Your task to perform on an android device: Open the calendar and show me this week's events? Image 0: 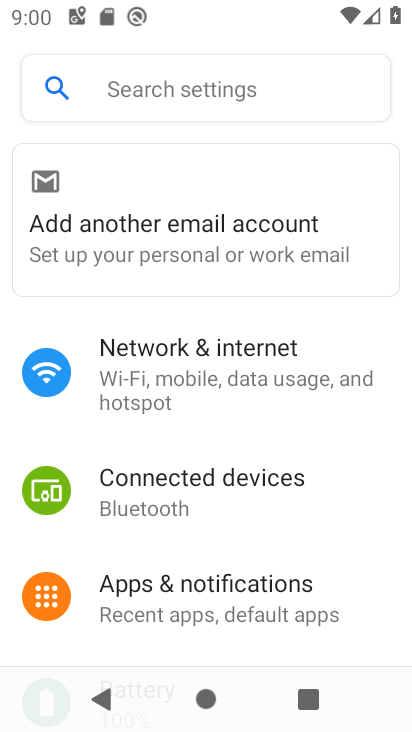
Step 0: press home button
Your task to perform on an android device: Open the calendar and show me this week's events? Image 1: 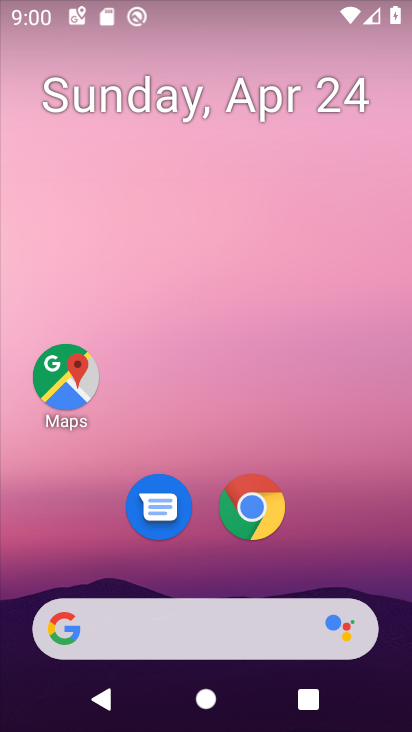
Step 1: drag from (324, 491) to (318, 41)
Your task to perform on an android device: Open the calendar and show me this week's events? Image 2: 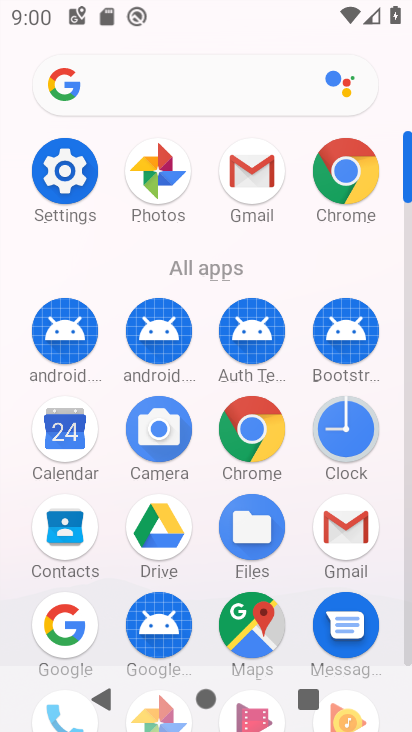
Step 2: click (77, 416)
Your task to perform on an android device: Open the calendar and show me this week's events? Image 3: 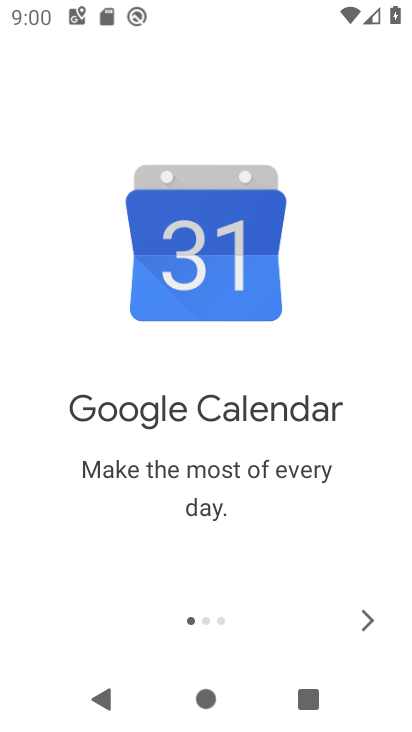
Step 3: click (366, 616)
Your task to perform on an android device: Open the calendar and show me this week's events? Image 4: 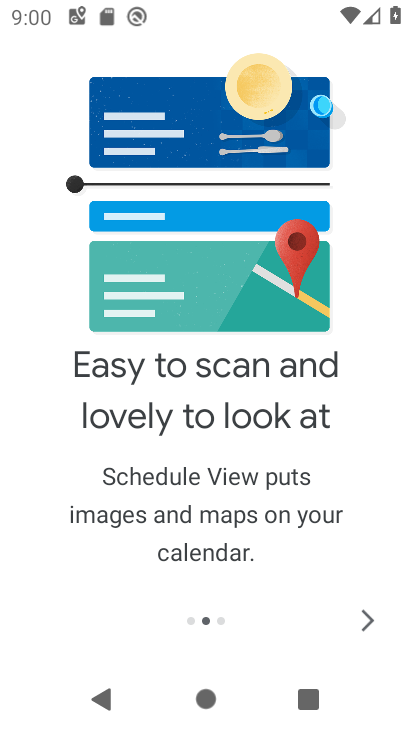
Step 4: click (366, 616)
Your task to perform on an android device: Open the calendar and show me this week's events? Image 5: 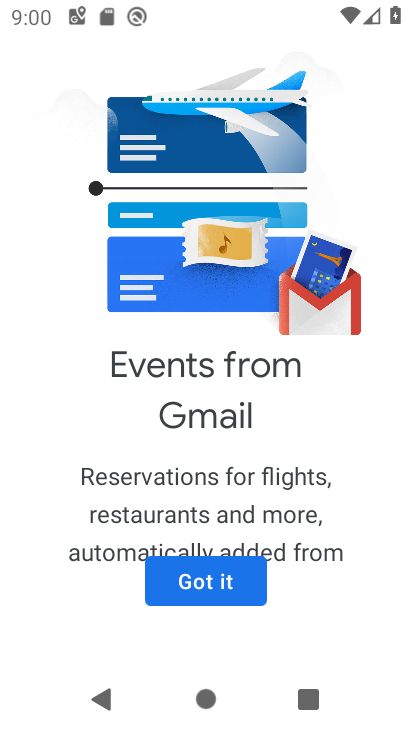
Step 5: click (211, 582)
Your task to perform on an android device: Open the calendar and show me this week's events? Image 6: 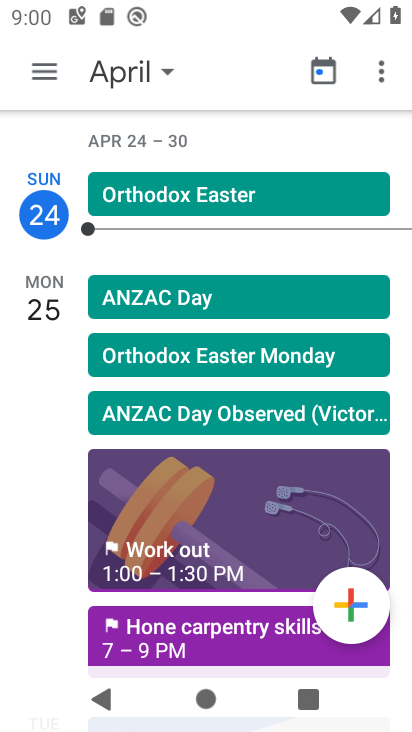
Step 6: click (49, 89)
Your task to perform on an android device: Open the calendar and show me this week's events? Image 7: 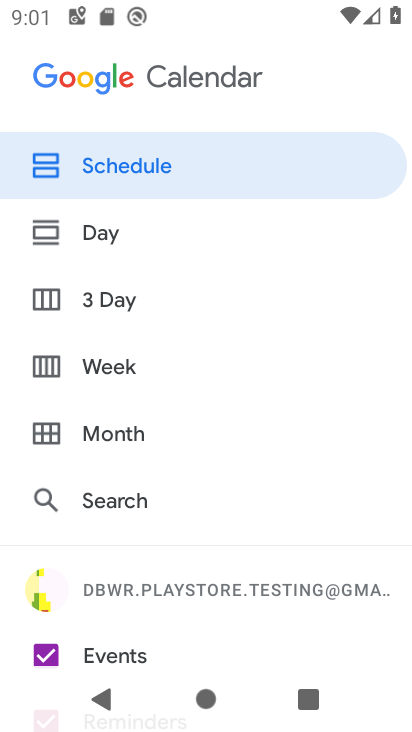
Step 7: click (127, 362)
Your task to perform on an android device: Open the calendar and show me this week's events? Image 8: 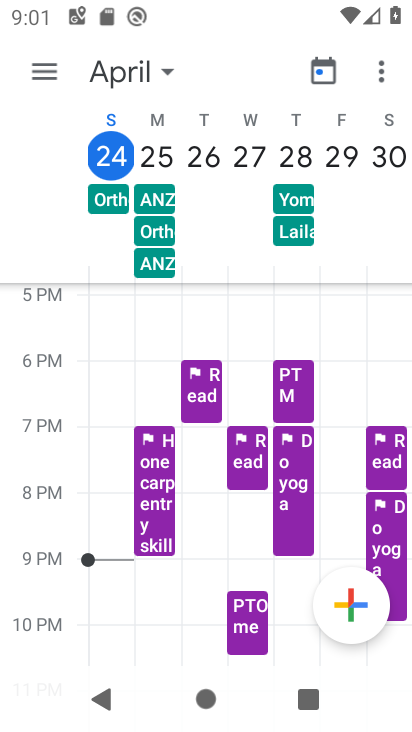
Step 8: task complete